Your task to perform on an android device: turn off picture-in-picture Image 0: 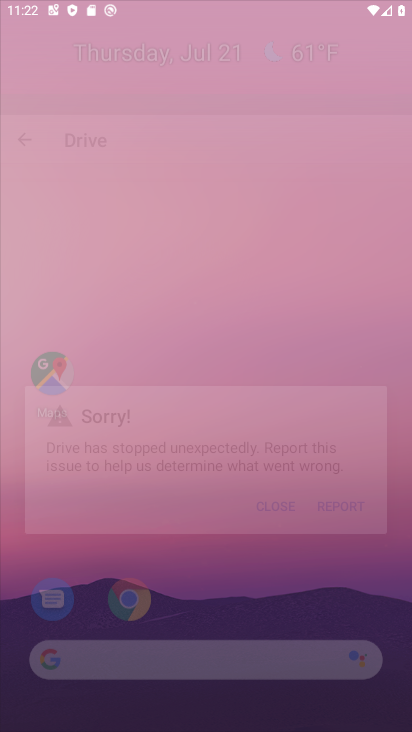
Step 0: click (197, 293)
Your task to perform on an android device: turn off picture-in-picture Image 1: 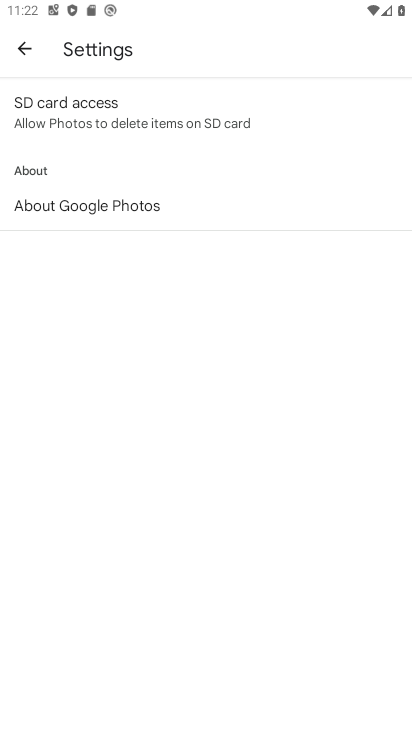
Step 1: press home button
Your task to perform on an android device: turn off picture-in-picture Image 2: 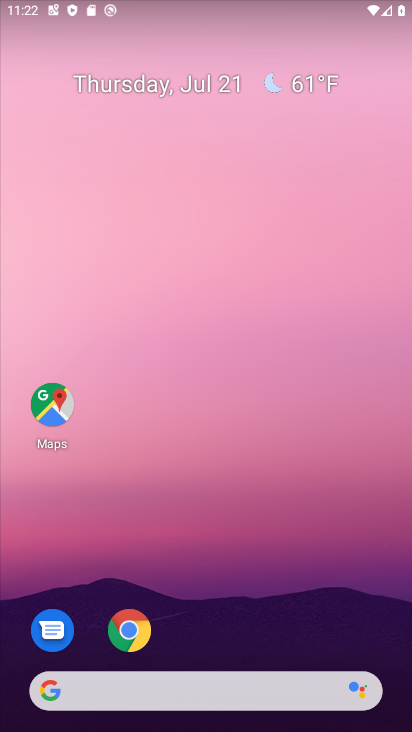
Step 2: click (130, 633)
Your task to perform on an android device: turn off picture-in-picture Image 3: 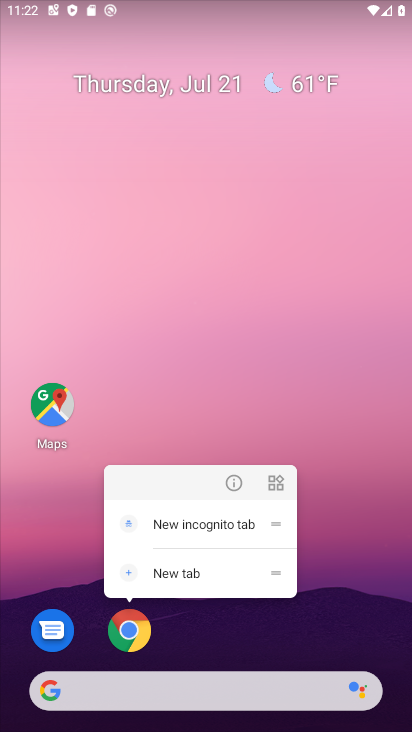
Step 3: click (225, 485)
Your task to perform on an android device: turn off picture-in-picture Image 4: 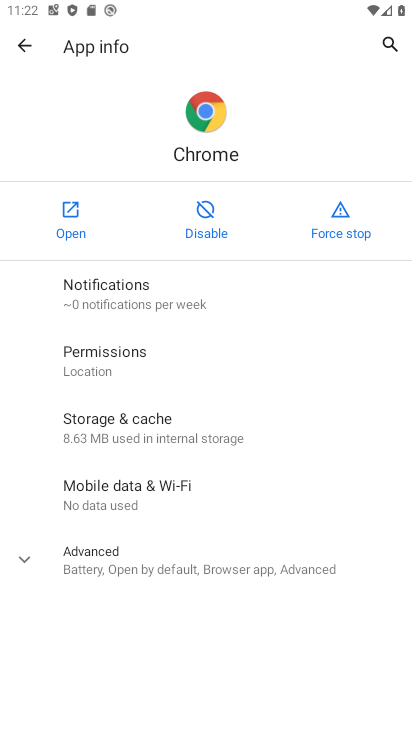
Step 4: click (122, 562)
Your task to perform on an android device: turn off picture-in-picture Image 5: 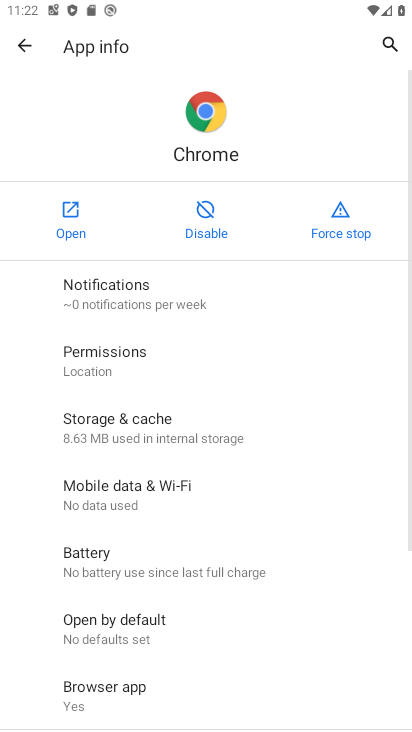
Step 5: drag from (117, 689) to (107, 441)
Your task to perform on an android device: turn off picture-in-picture Image 6: 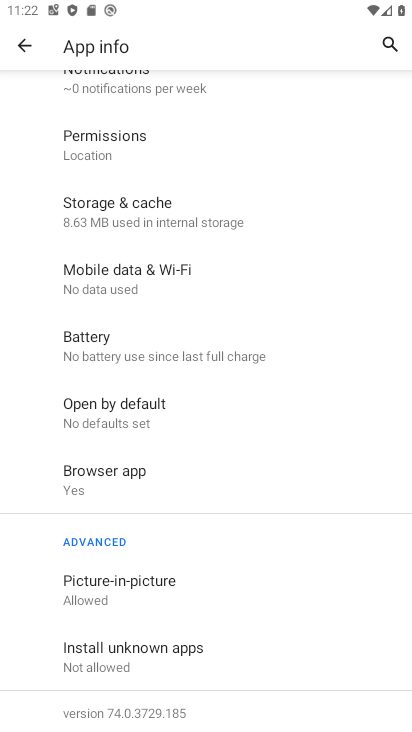
Step 6: click (106, 585)
Your task to perform on an android device: turn off picture-in-picture Image 7: 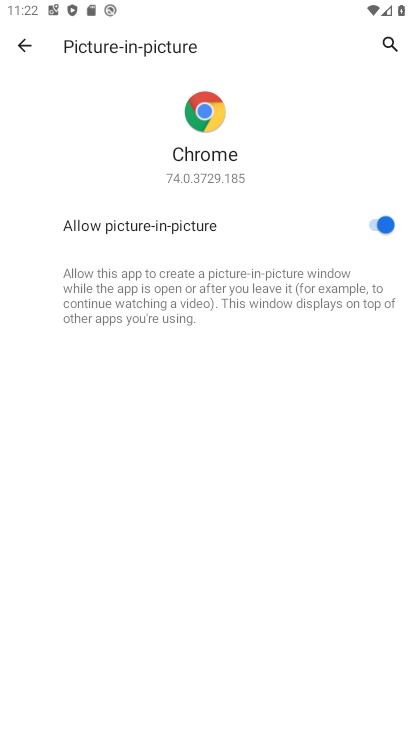
Step 7: click (382, 226)
Your task to perform on an android device: turn off picture-in-picture Image 8: 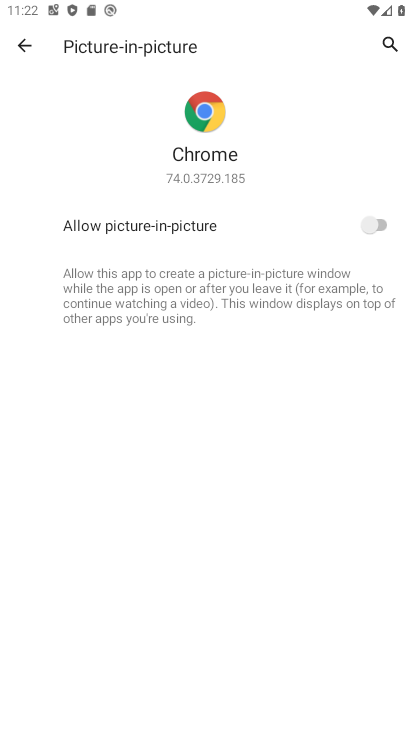
Step 8: task complete